Your task to perform on an android device: Go to battery settings Image 0: 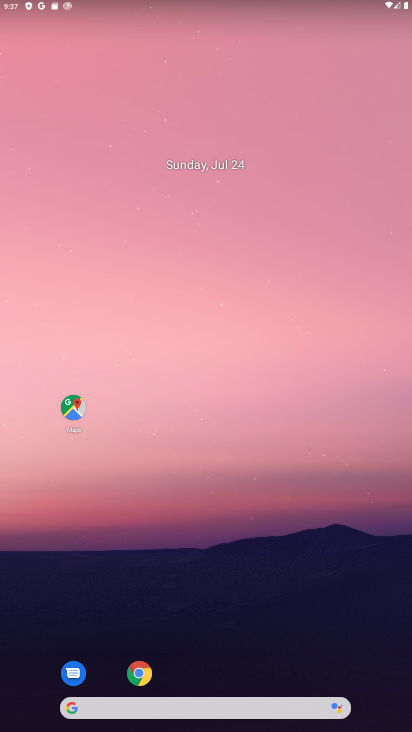
Step 0: drag from (10, 673) to (139, 220)
Your task to perform on an android device: Go to battery settings Image 1: 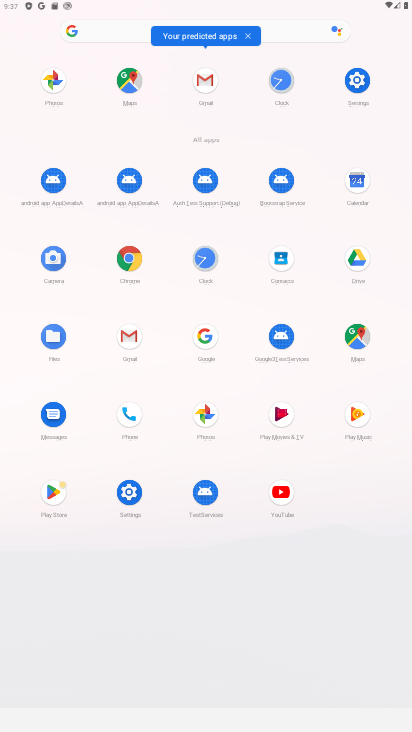
Step 1: click (127, 497)
Your task to perform on an android device: Go to battery settings Image 2: 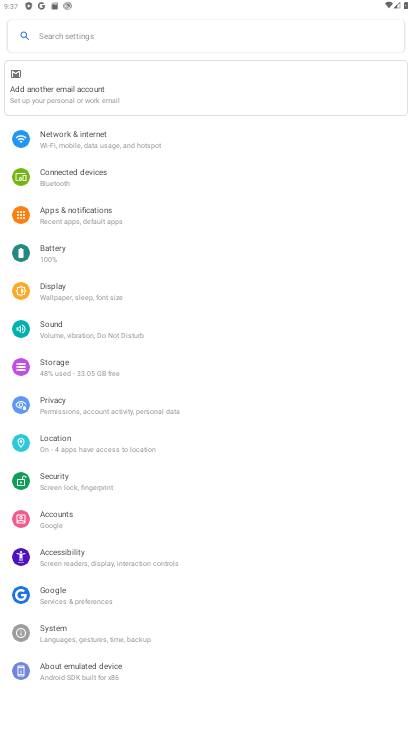
Step 2: click (73, 244)
Your task to perform on an android device: Go to battery settings Image 3: 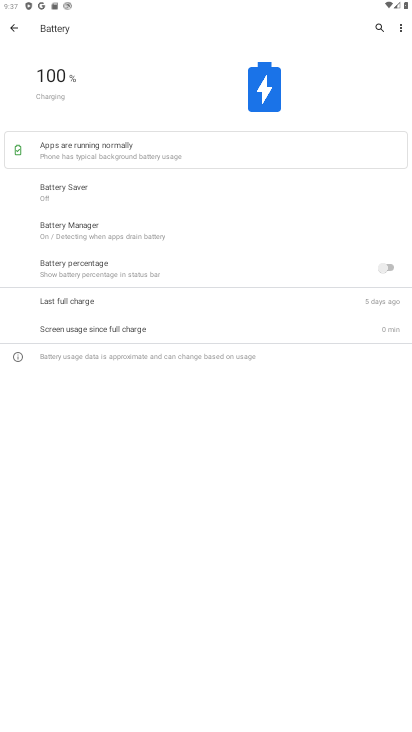
Step 3: task complete